Your task to perform on an android device: turn on bluetooth scan Image 0: 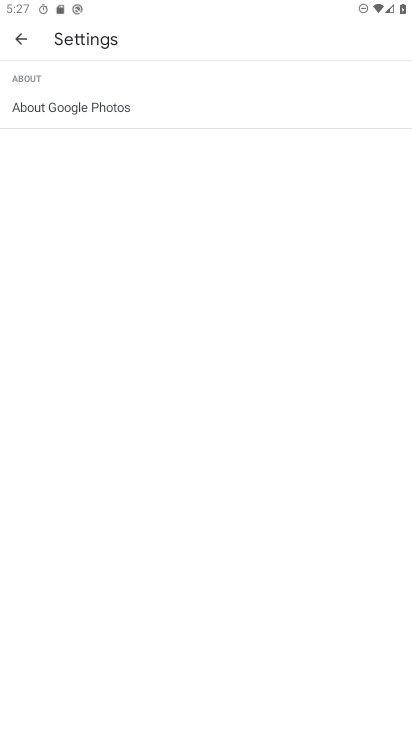
Step 0: press home button
Your task to perform on an android device: turn on bluetooth scan Image 1: 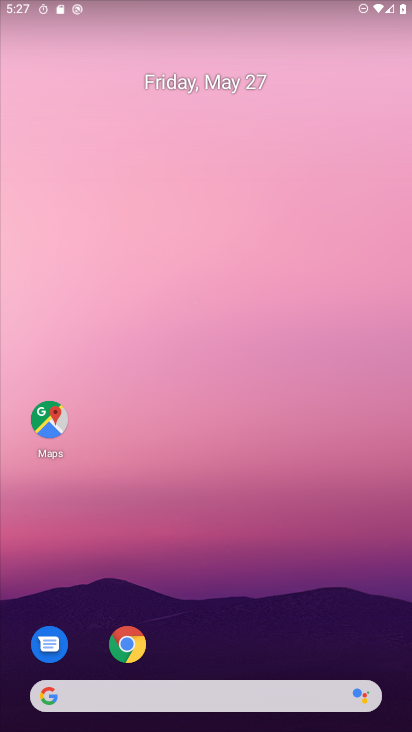
Step 1: drag from (205, 643) to (301, 236)
Your task to perform on an android device: turn on bluetooth scan Image 2: 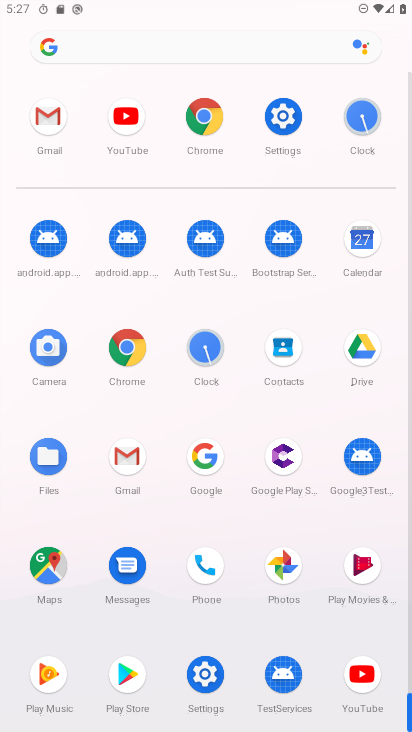
Step 2: click (289, 97)
Your task to perform on an android device: turn on bluetooth scan Image 3: 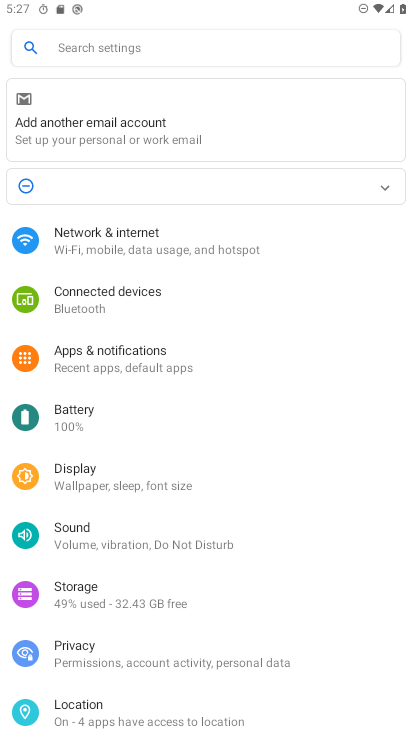
Step 3: click (98, 714)
Your task to perform on an android device: turn on bluetooth scan Image 4: 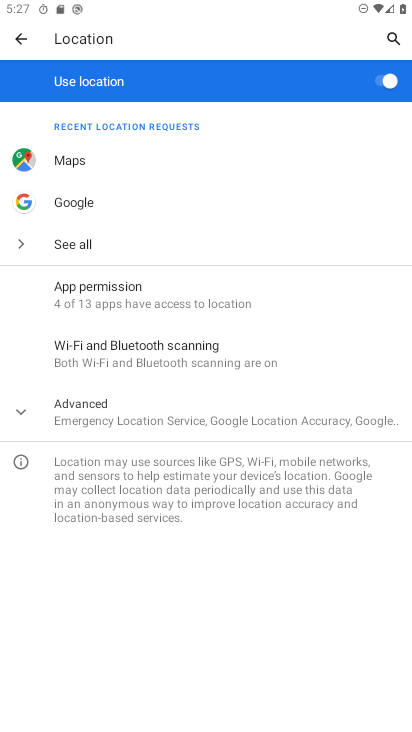
Step 4: click (219, 350)
Your task to perform on an android device: turn on bluetooth scan Image 5: 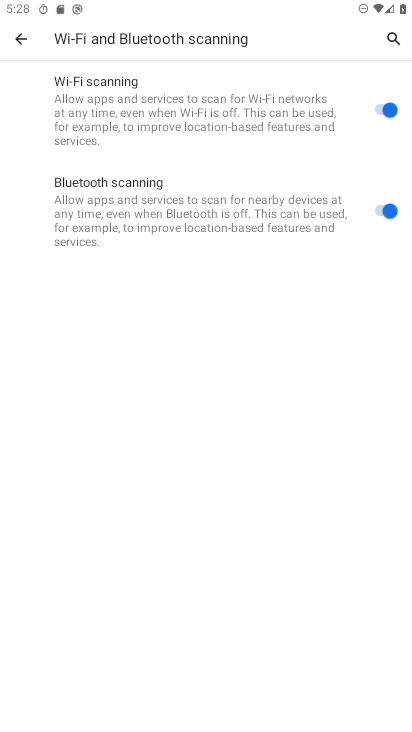
Step 5: task complete